Your task to perform on an android device: delete a single message in the gmail app Image 0: 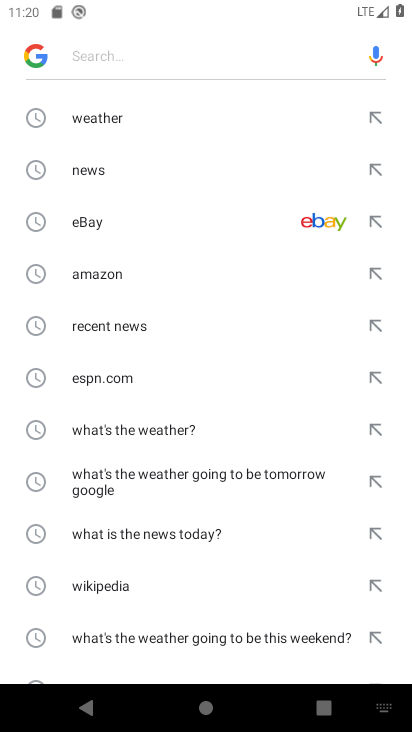
Step 0: press home button
Your task to perform on an android device: delete a single message in the gmail app Image 1: 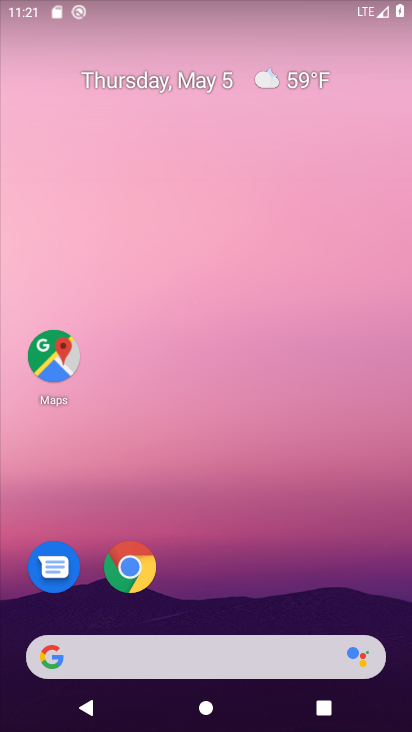
Step 1: drag from (331, 614) to (334, 4)
Your task to perform on an android device: delete a single message in the gmail app Image 2: 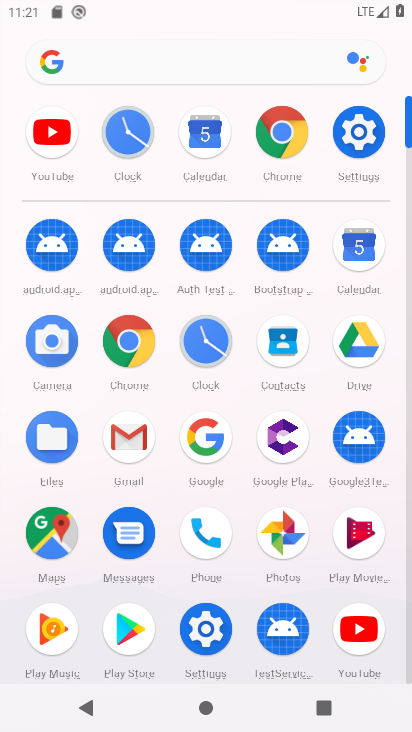
Step 2: click (131, 441)
Your task to perform on an android device: delete a single message in the gmail app Image 3: 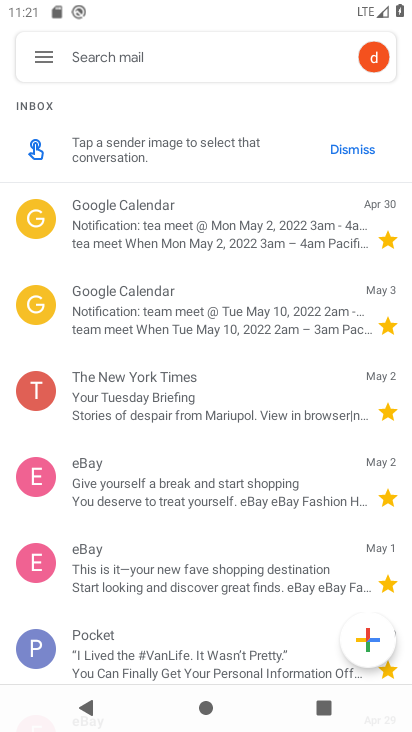
Step 3: drag from (191, 429) to (191, 239)
Your task to perform on an android device: delete a single message in the gmail app Image 4: 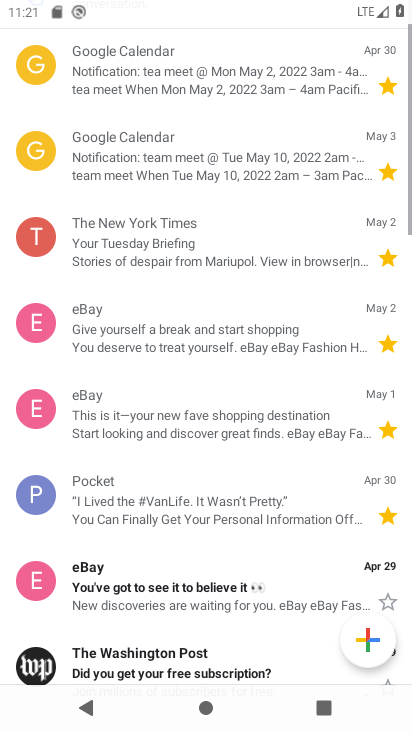
Step 4: click (113, 418)
Your task to perform on an android device: delete a single message in the gmail app Image 5: 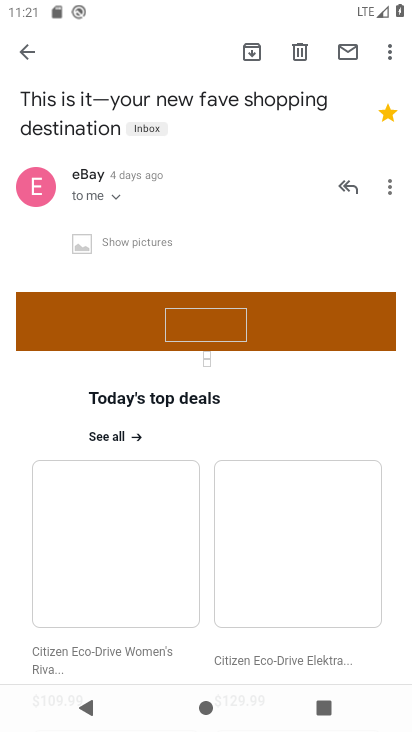
Step 5: click (296, 55)
Your task to perform on an android device: delete a single message in the gmail app Image 6: 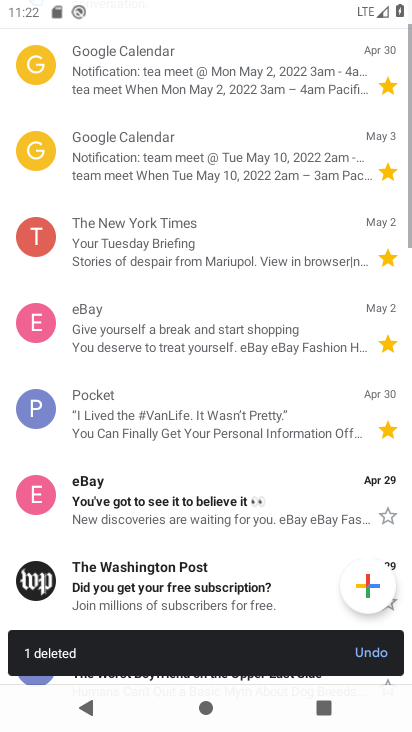
Step 6: task complete